Your task to perform on an android device: stop showing notifications on the lock screen Image 0: 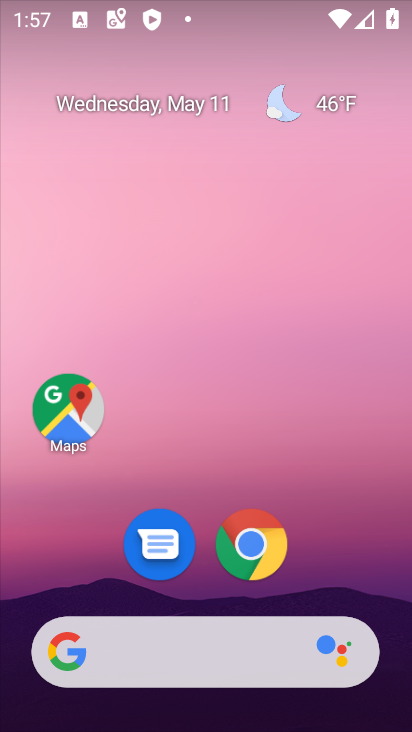
Step 0: drag from (401, 648) to (278, 147)
Your task to perform on an android device: stop showing notifications on the lock screen Image 1: 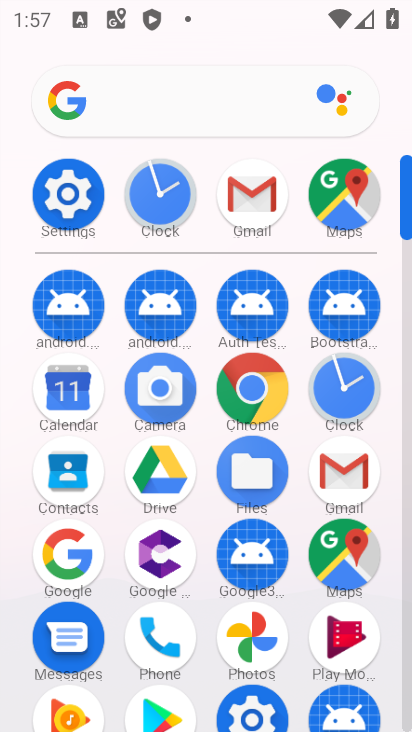
Step 1: click (408, 713)
Your task to perform on an android device: stop showing notifications on the lock screen Image 2: 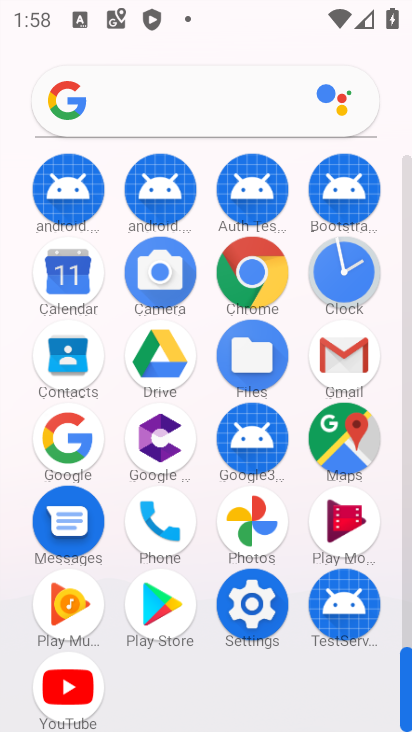
Step 2: click (254, 605)
Your task to perform on an android device: stop showing notifications on the lock screen Image 3: 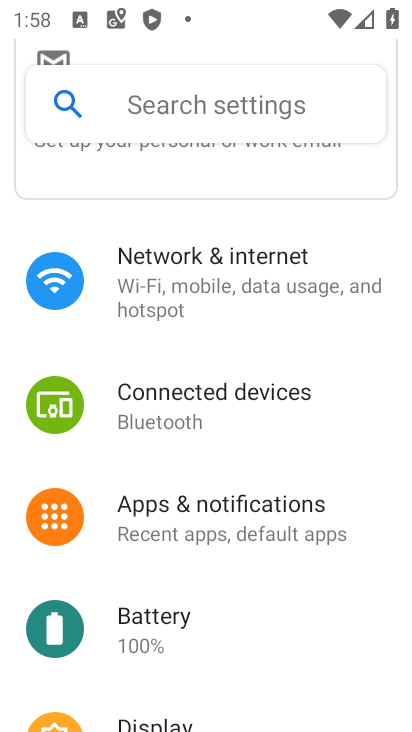
Step 3: click (182, 508)
Your task to perform on an android device: stop showing notifications on the lock screen Image 4: 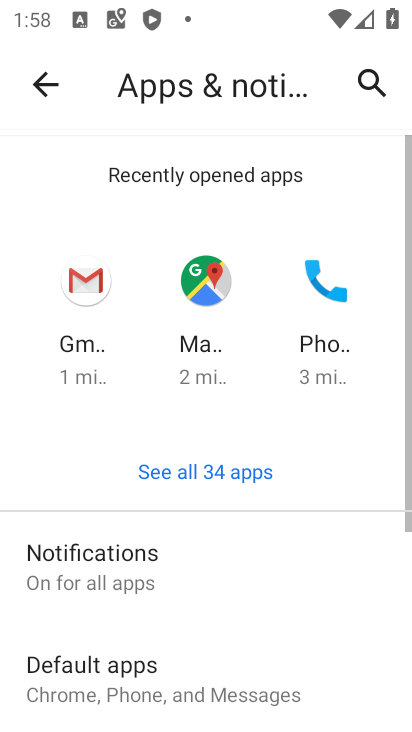
Step 4: drag from (319, 670) to (272, 346)
Your task to perform on an android device: stop showing notifications on the lock screen Image 5: 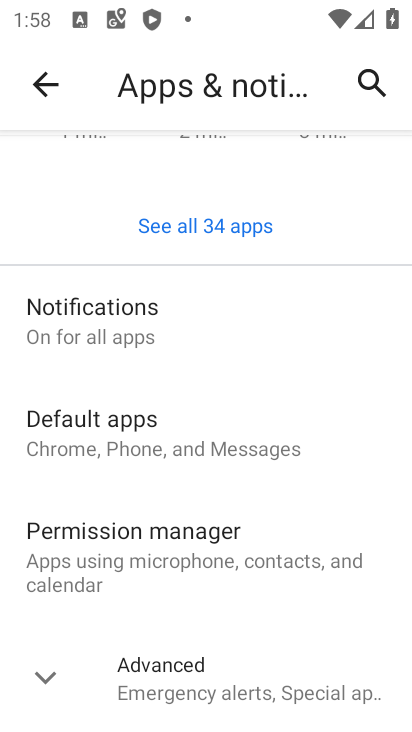
Step 5: click (91, 314)
Your task to perform on an android device: stop showing notifications on the lock screen Image 6: 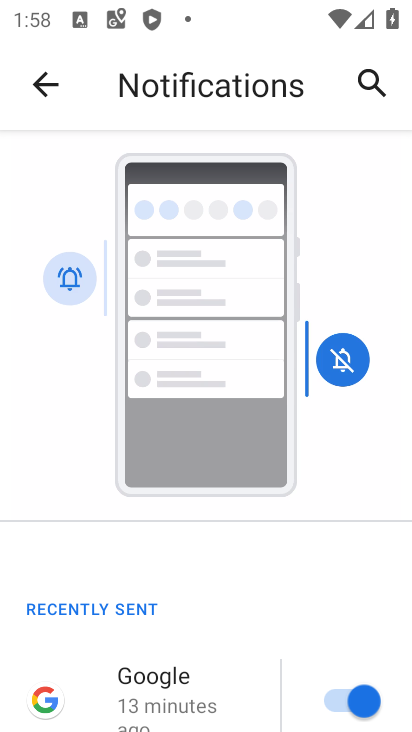
Step 6: drag from (278, 681) to (204, 152)
Your task to perform on an android device: stop showing notifications on the lock screen Image 7: 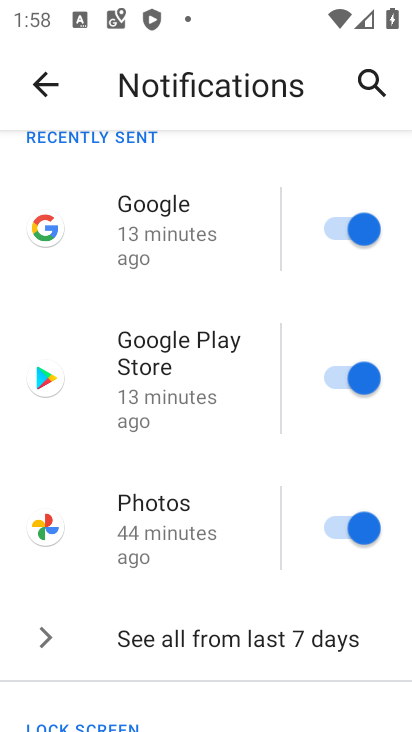
Step 7: drag from (277, 655) to (254, 169)
Your task to perform on an android device: stop showing notifications on the lock screen Image 8: 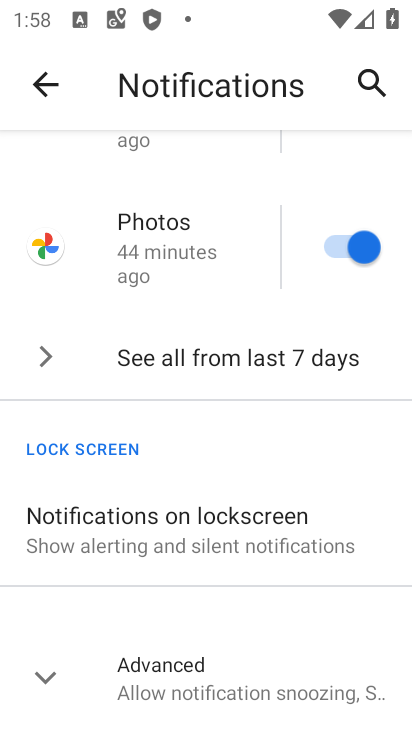
Step 8: click (95, 531)
Your task to perform on an android device: stop showing notifications on the lock screen Image 9: 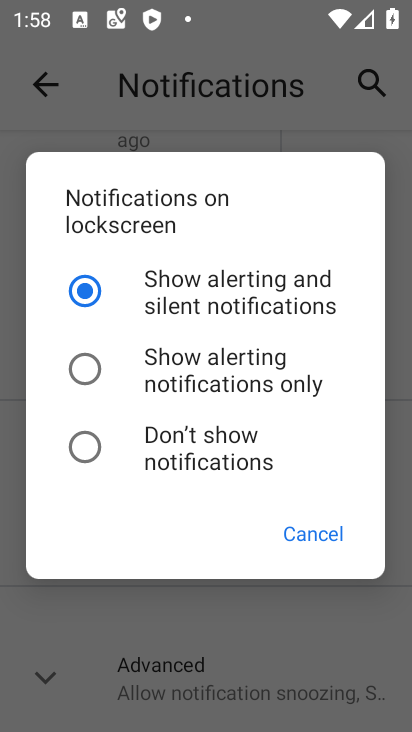
Step 9: click (84, 446)
Your task to perform on an android device: stop showing notifications on the lock screen Image 10: 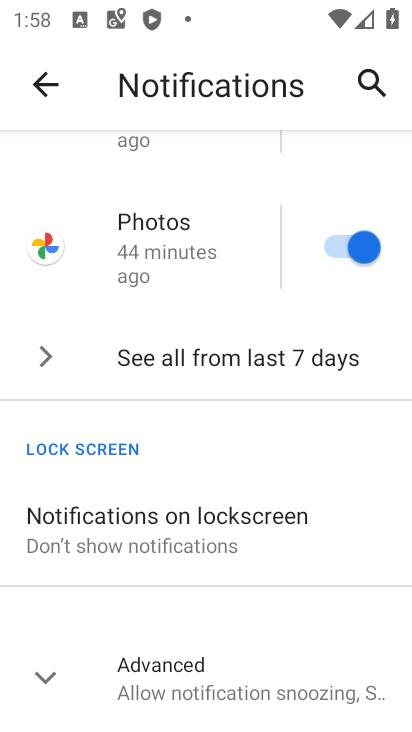
Step 10: task complete